Your task to perform on an android device: move a message to another label in the gmail app Image 0: 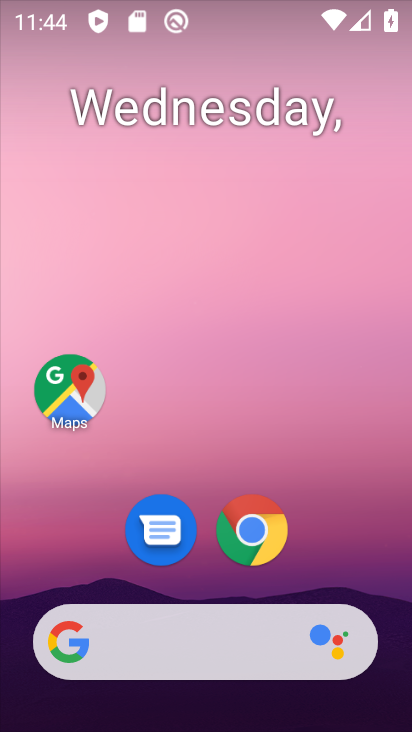
Step 0: drag from (177, 638) to (176, 205)
Your task to perform on an android device: move a message to another label in the gmail app Image 1: 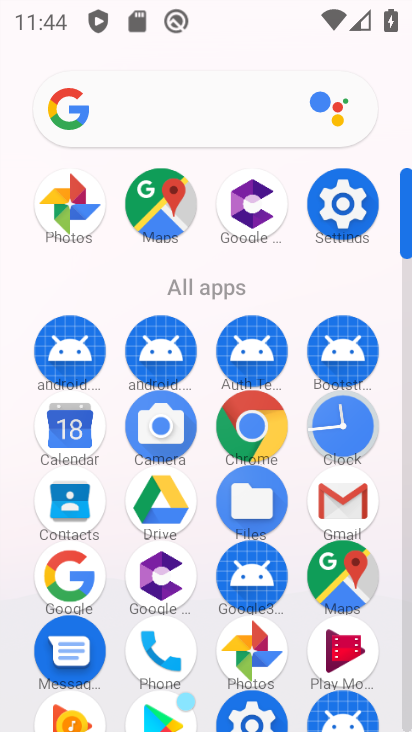
Step 1: click (342, 499)
Your task to perform on an android device: move a message to another label in the gmail app Image 2: 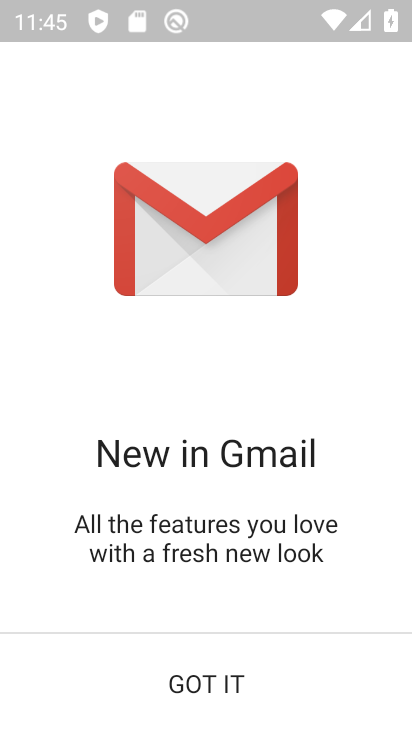
Step 2: click (157, 703)
Your task to perform on an android device: move a message to another label in the gmail app Image 3: 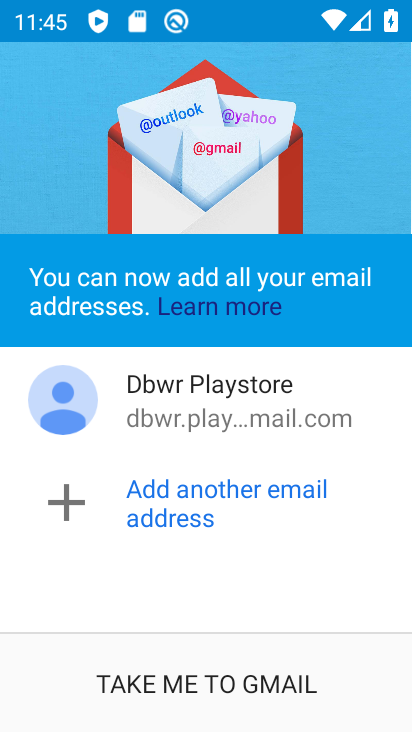
Step 3: click (179, 679)
Your task to perform on an android device: move a message to another label in the gmail app Image 4: 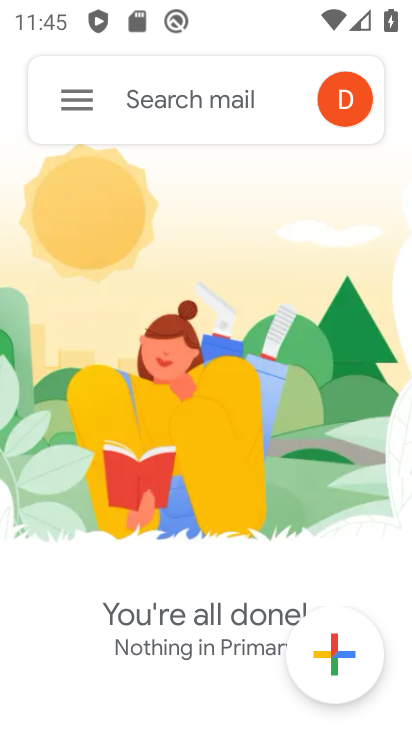
Step 4: click (72, 99)
Your task to perform on an android device: move a message to another label in the gmail app Image 5: 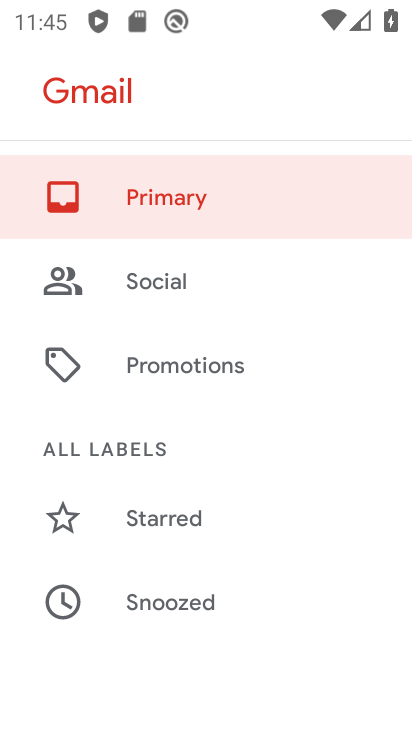
Step 5: drag from (162, 604) to (160, 229)
Your task to perform on an android device: move a message to another label in the gmail app Image 6: 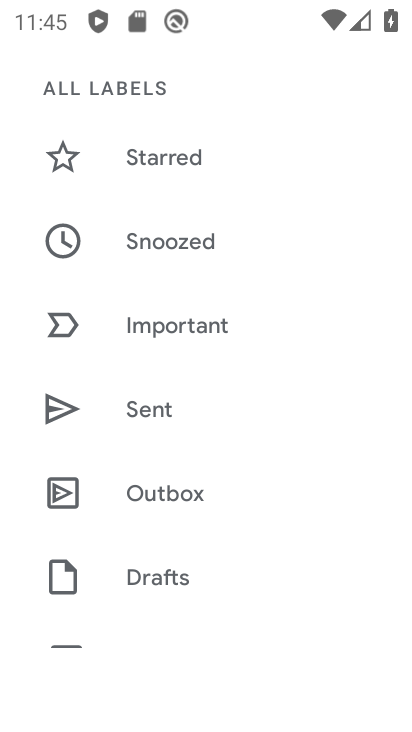
Step 6: drag from (171, 590) to (165, 262)
Your task to perform on an android device: move a message to another label in the gmail app Image 7: 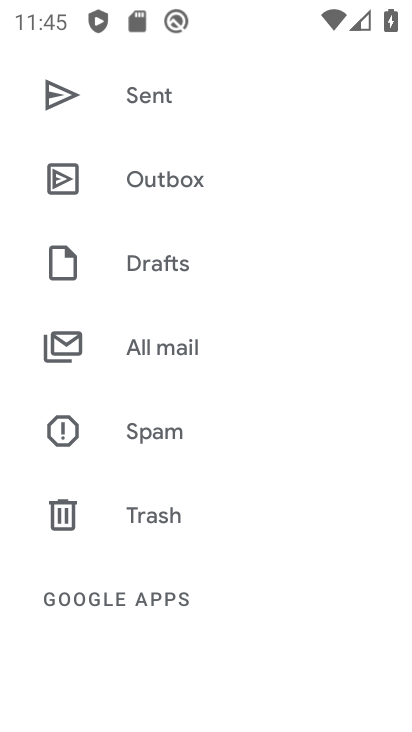
Step 7: click (141, 342)
Your task to perform on an android device: move a message to another label in the gmail app Image 8: 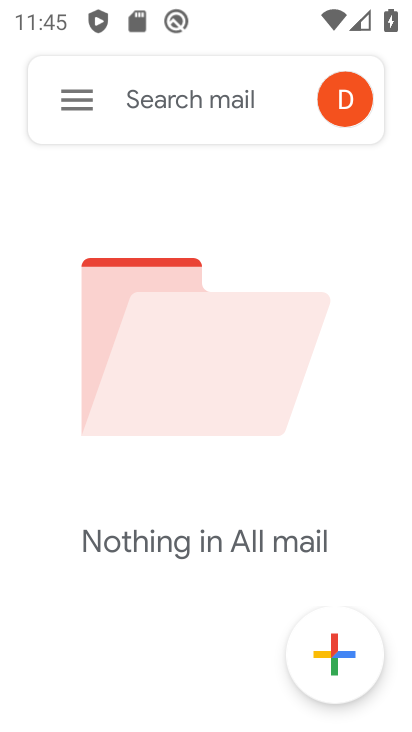
Step 8: task complete